Your task to perform on an android device: What is the recent news? Image 0: 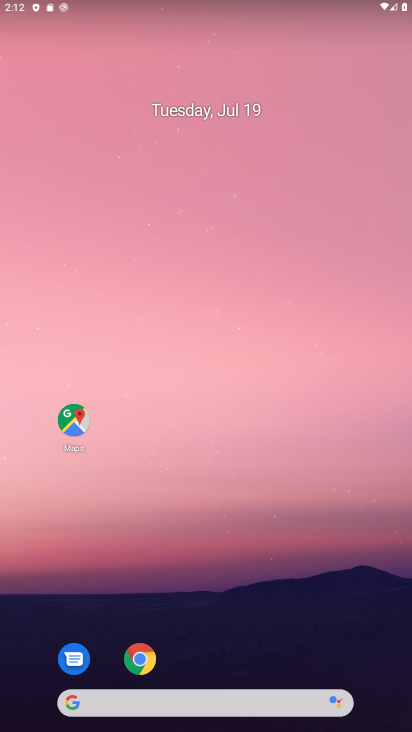
Step 0: click (135, 661)
Your task to perform on an android device: What is the recent news? Image 1: 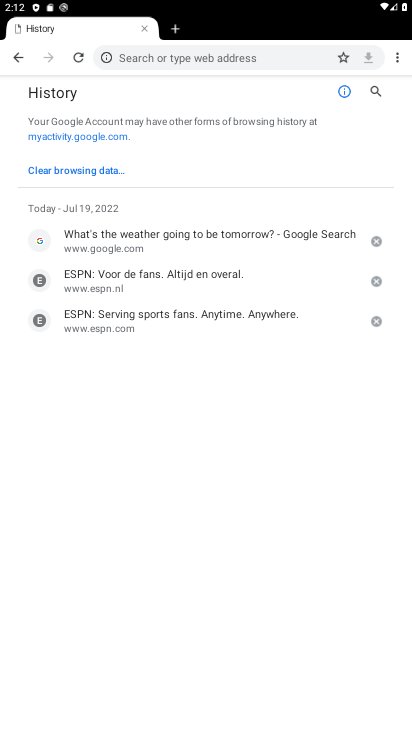
Step 1: click (205, 49)
Your task to perform on an android device: What is the recent news? Image 2: 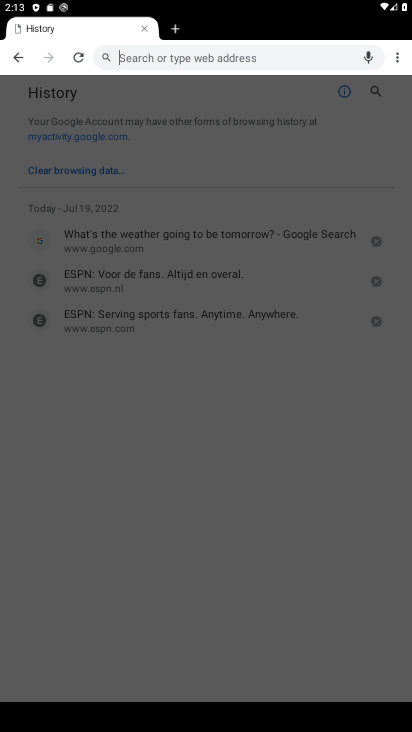
Step 2: type "recent news"
Your task to perform on an android device: What is the recent news? Image 3: 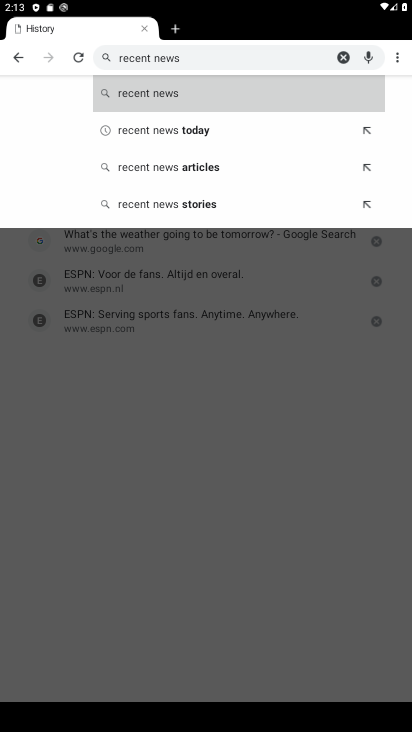
Step 3: click (153, 86)
Your task to perform on an android device: What is the recent news? Image 4: 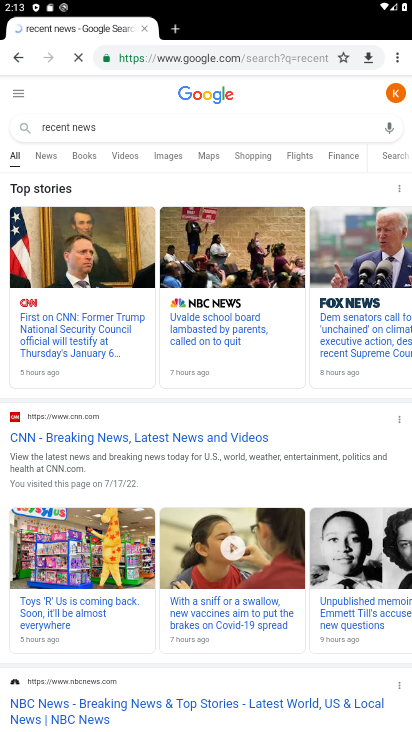
Step 4: task complete